Your task to perform on an android device: open chrome privacy settings Image 0: 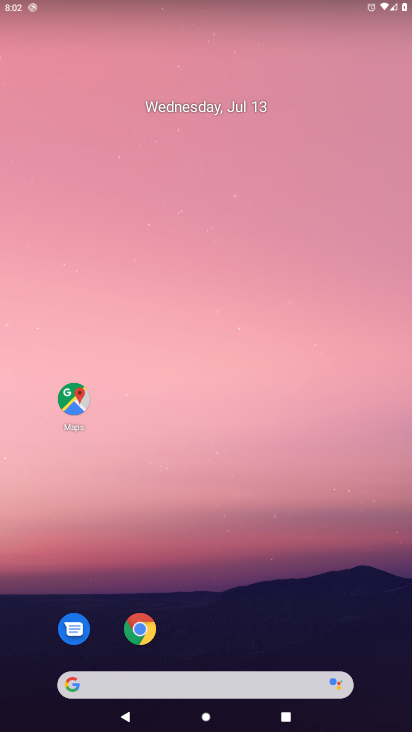
Step 0: drag from (130, 432) to (326, 45)
Your task to perform on an android device: open chrome privacy settings Image 1: 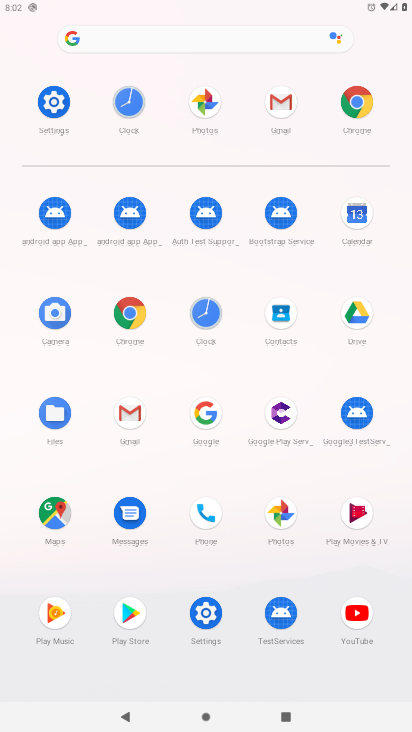
Step 1: click (131, 324)
Your task to perform on an android device: open chrome privacy settings Image 2: 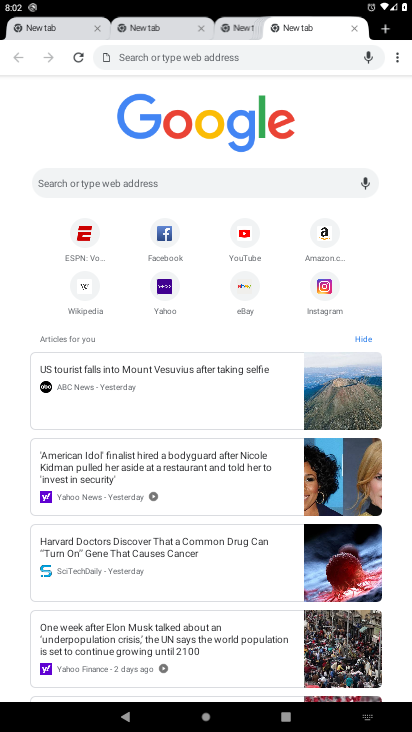
Step 2: click (394, 56)
Your task to perform on an android device: open chrome privacy settings Image 3: 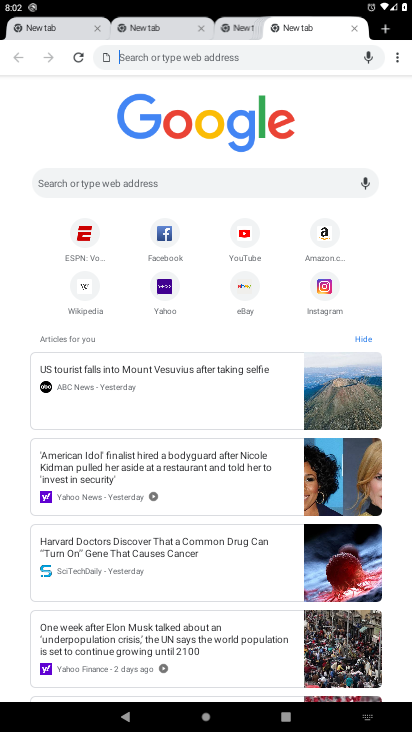
Step 3: click (395, 57)
Your task to perform on an android device: open chrome privacy settings Image 4: 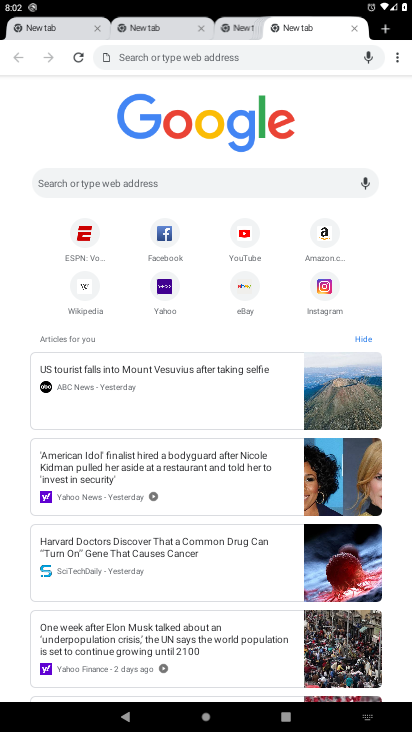
Step 4: task complete